Your task to perform on an android device: change the clock display to show seconds Image 0: 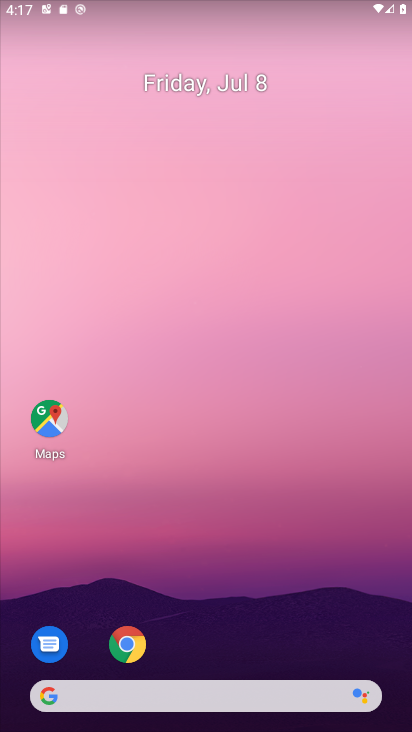
Step 0: drag from (370, 653) to (311, 126)
Your task to perform on an android device: change the clock display to show seconds Image 1: 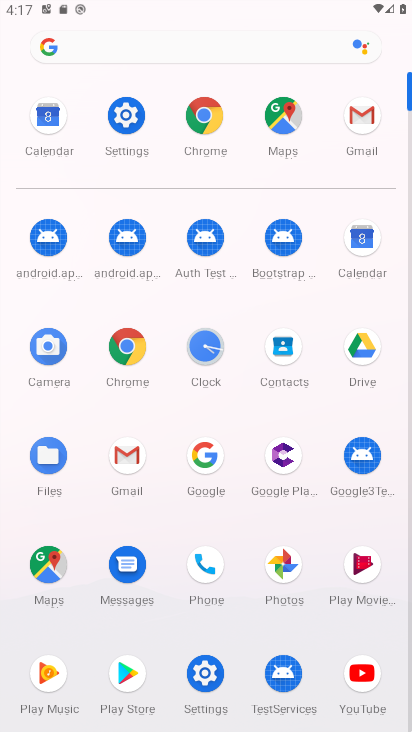
Step 1: click (203, 345)
Your task to perform on an android device: change the clock display to show seconds Image 2: 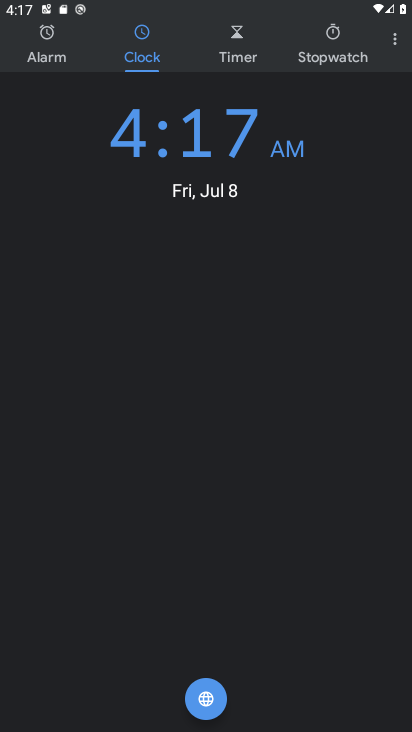
Step 2: click (392, 44)
Your task to perform on an android device: change the clock display to show seconds Image 3: 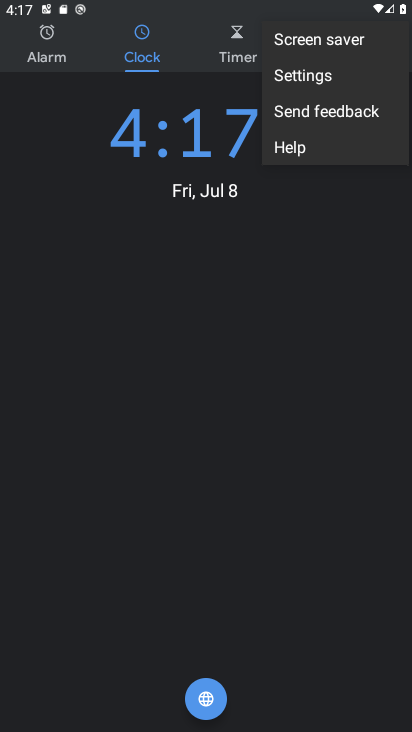
Step 3: click (301, 80)
Your task to perform on an android device: change the clock display to show seconds Image 4: 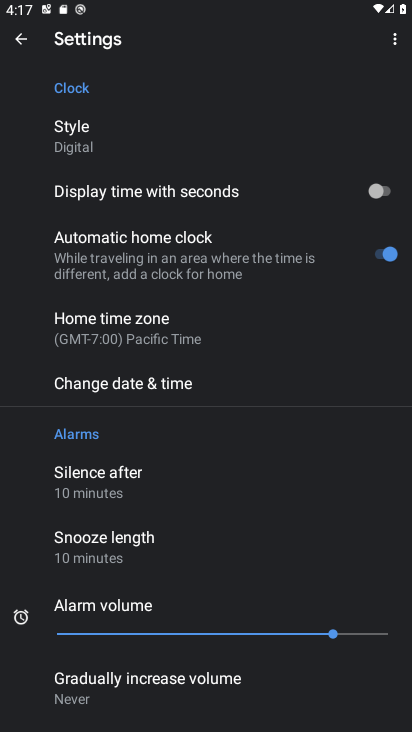
Step 4: click (386, 190)
Your task to perform on an android device: change the clock display to show seconds Image 5: 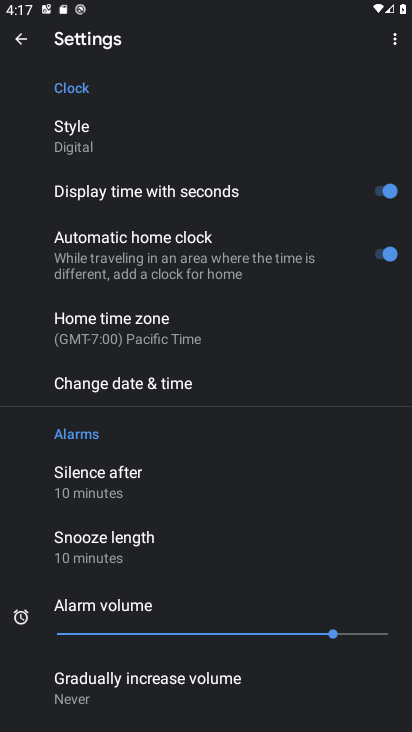
Step 5: task complete